Your task to perform on an android device: toggle location history Image 0: 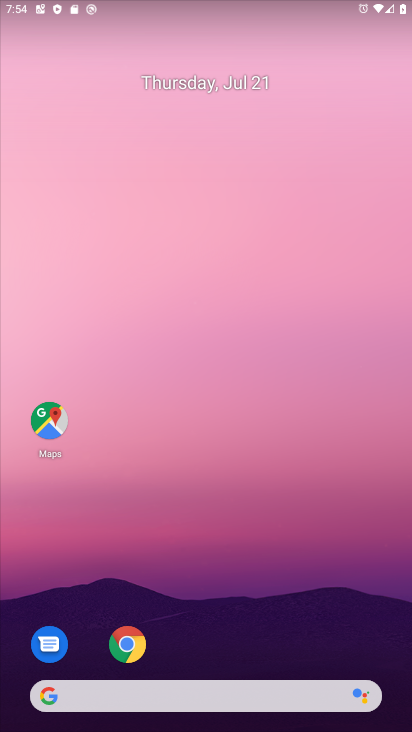
Step 0: drag from (275, 634) to (212, 53)
Your task to perform on an android device: toggle location history Image 1: 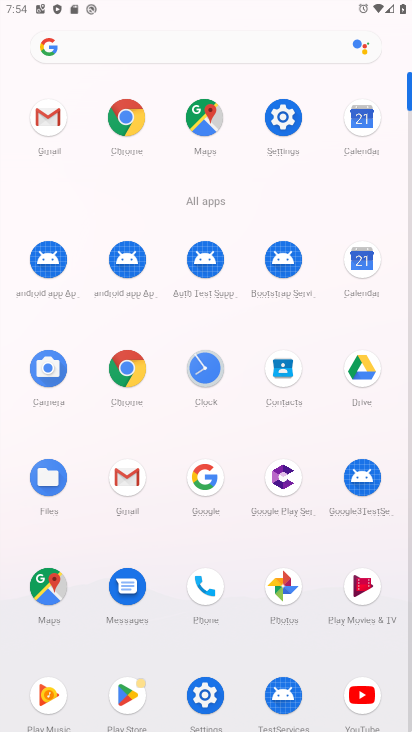
Step 1: click (282, 106)
Your task to perform on an android device: toggle location history Image 2: 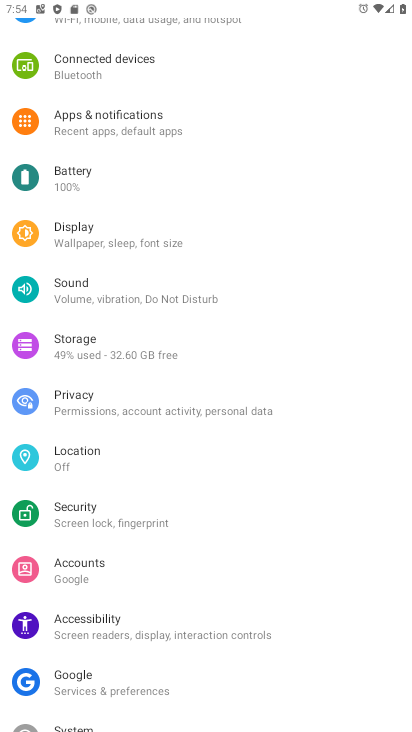
Step 2: click (83, 440)
Your task to perform on an android device: toggle location history Image 3: 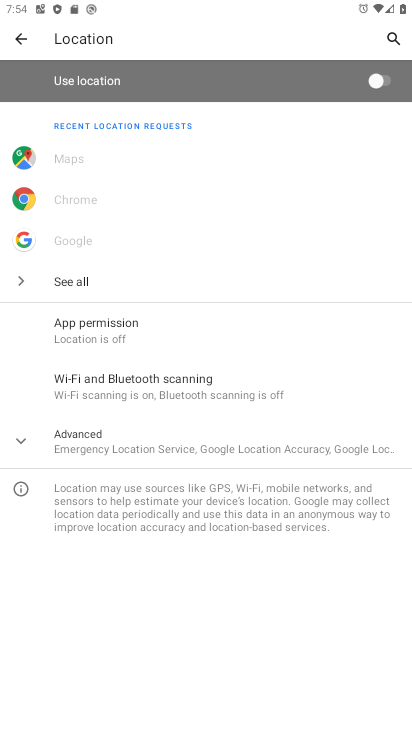
Step 3: click (127, 447)
Your task to perform on an android device: toggle location history Image 4: 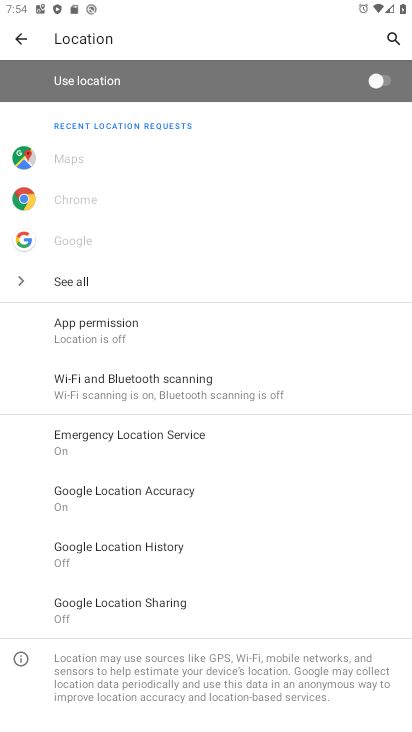
Step 4: click (135, 562)
Your task to perform on an android device: toggle location history Image 5: 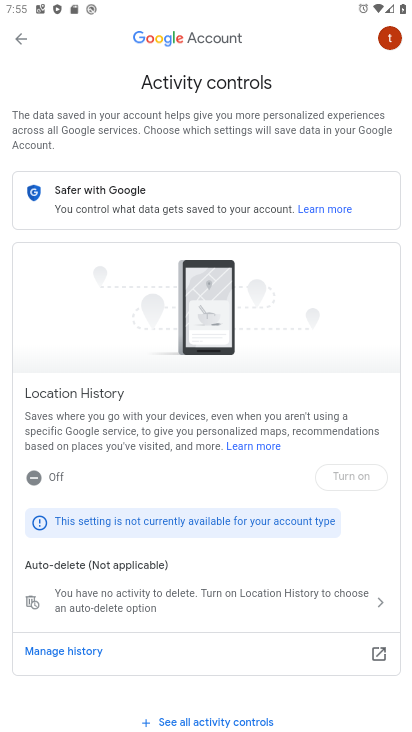
Step 5: click (327, 469)
Your task to perform on an android device: toggle location history Image 6: 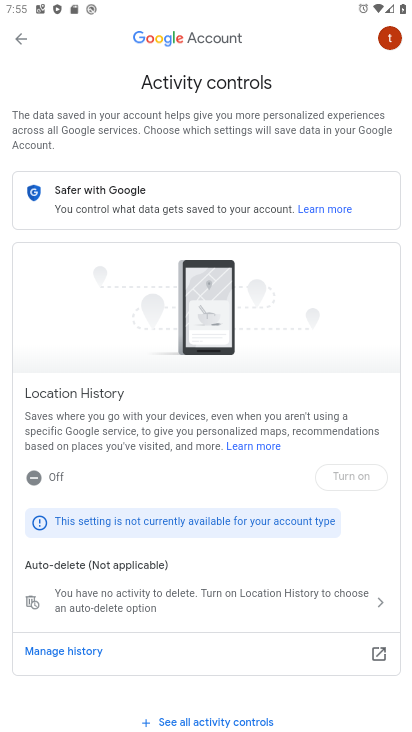
Step 6: click (327, 469)
Your task to perform on an android device: toggle location history Image 7: 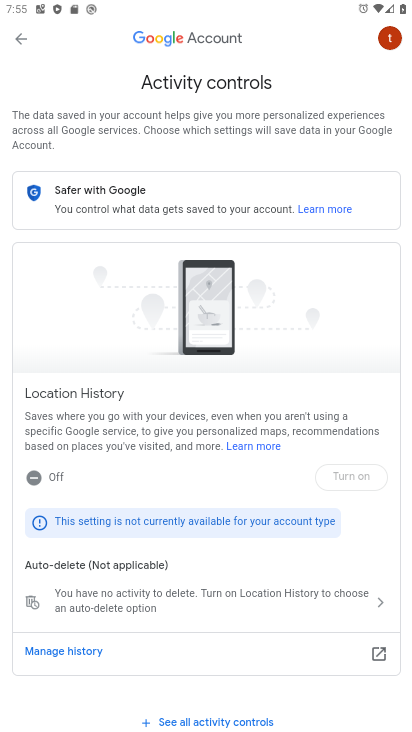
Step 7: task complete